Your task to perform on an android device: Open internet settings Image 0: 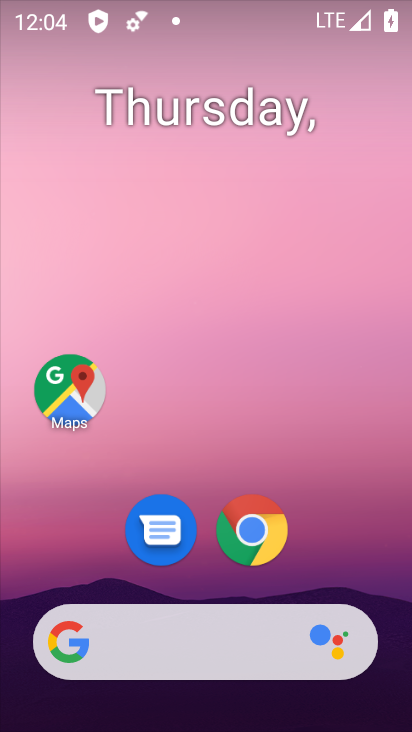
Step 0: drag from (239, 631) to (277, 145)
Your task to perform on an android device: Open internet settings Image 1: 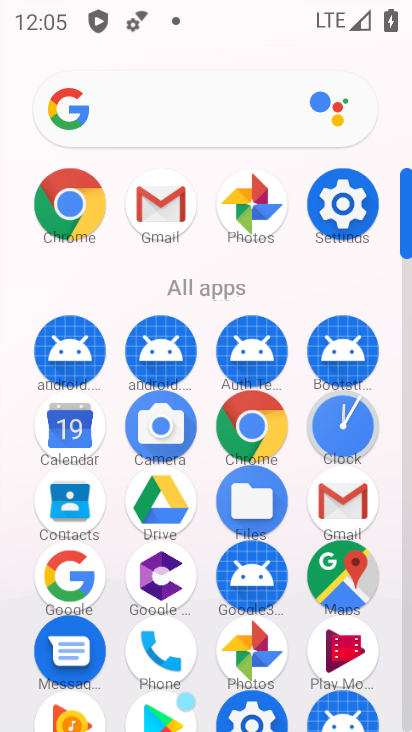
Step 1: click (326, 212)
Your task to perform on an android device: Open internet settings Image 2: 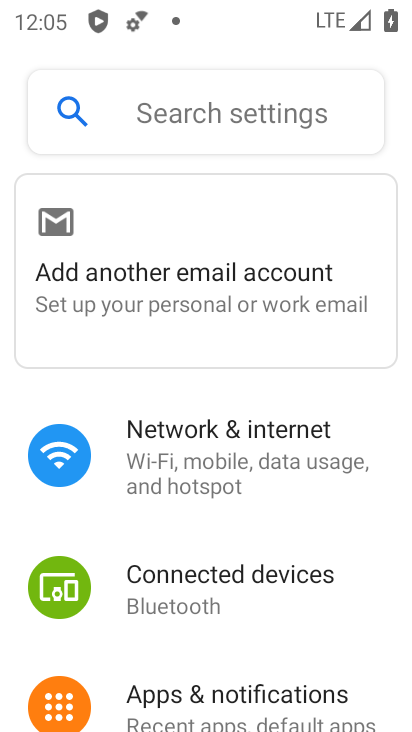
Step 2: click (182, 444)
Your task to perform on an android device: Open internet settings Image 3: 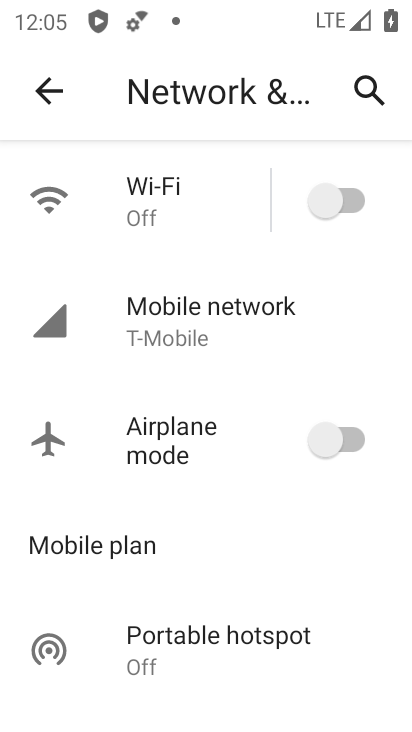
Step 3: task complete